Your task to perform on an android device: open app "Gmail" Image 0: 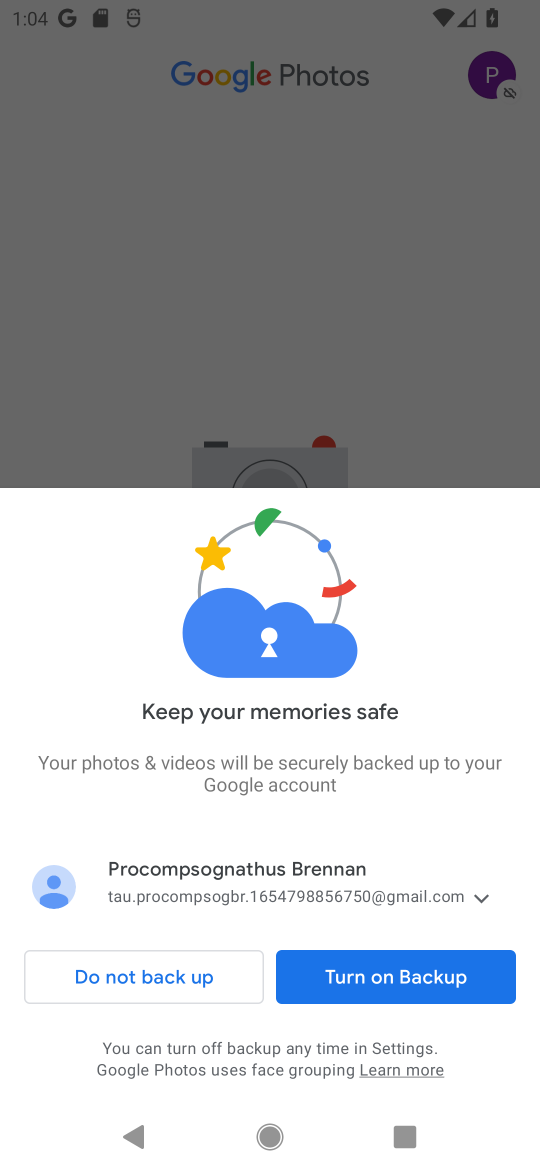
Step 0: press back button
Your task to perform on an android device: open app "Gmail" Image 1: 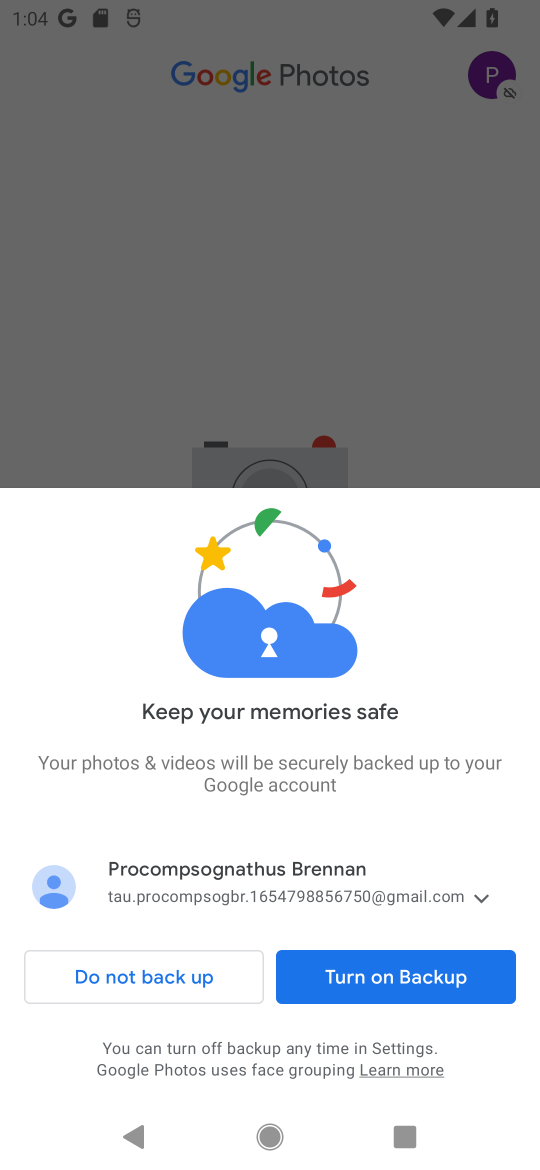
Step 1: press home button
Your task to perform on an android device: open app "Gmail" Image 2: 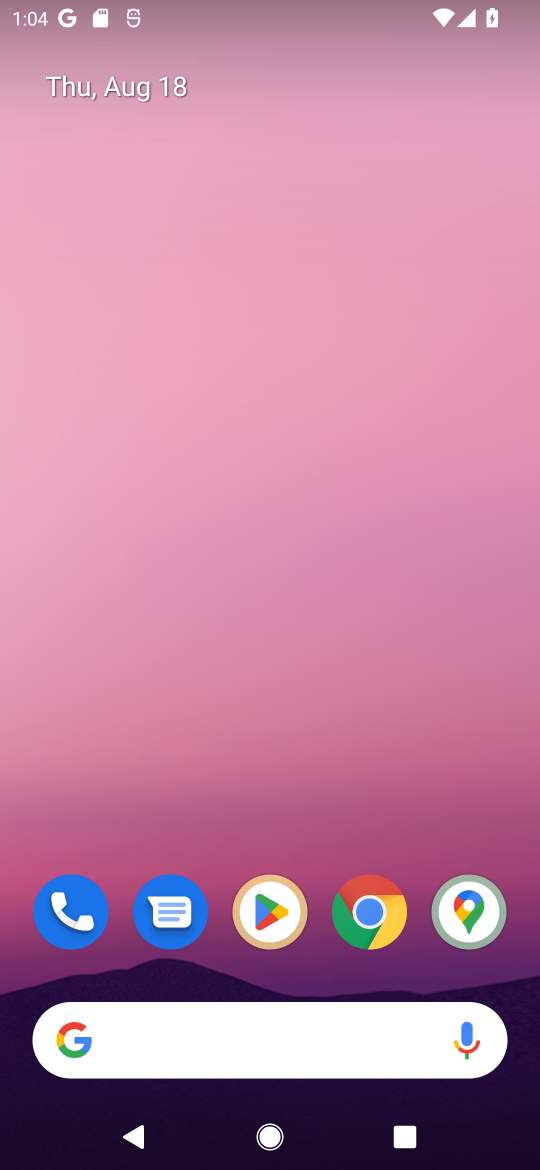
Step 2: click (269, 922)
Your task to perform on an android device: open app "Gmail" Image 3: 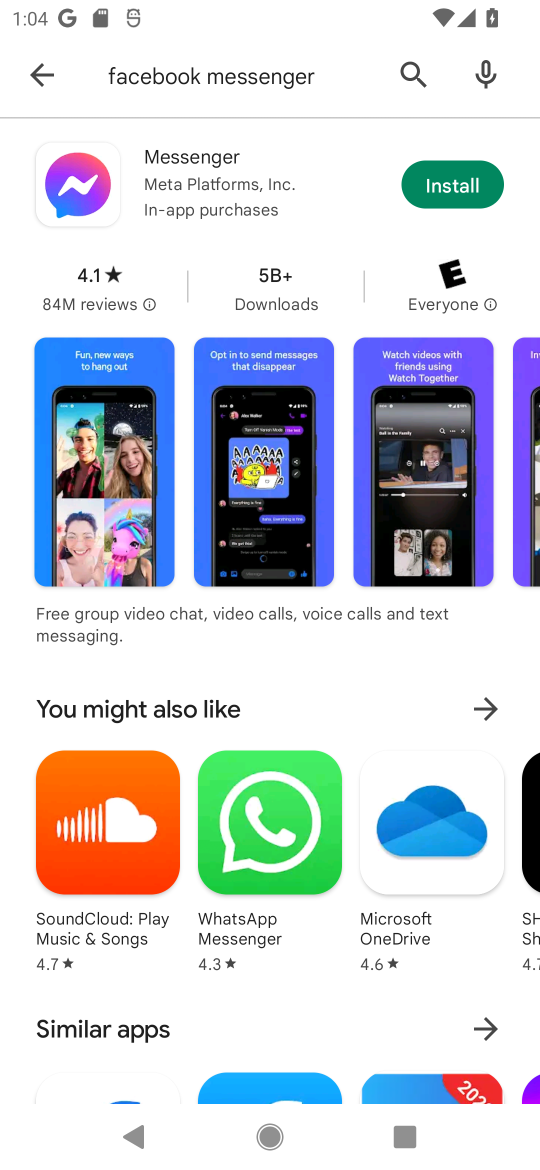
Step 3: click (409, 67)
Your task to perform on an android device: open app "Gmail" Image 4: 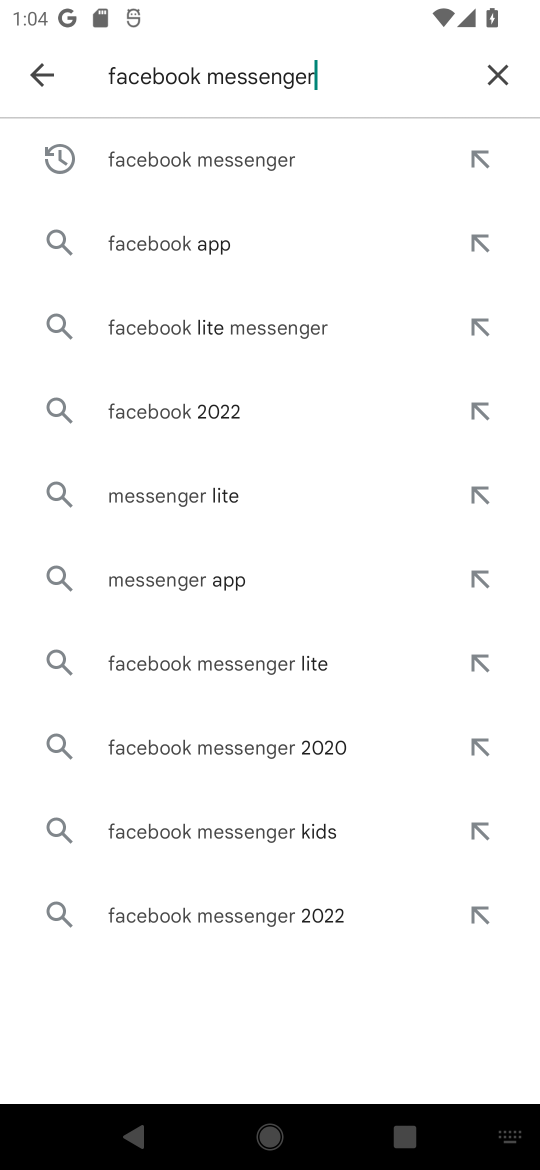
Step 4: click (485, 73)
Your task to perform on an android device: open app "Gmail" Image 5: 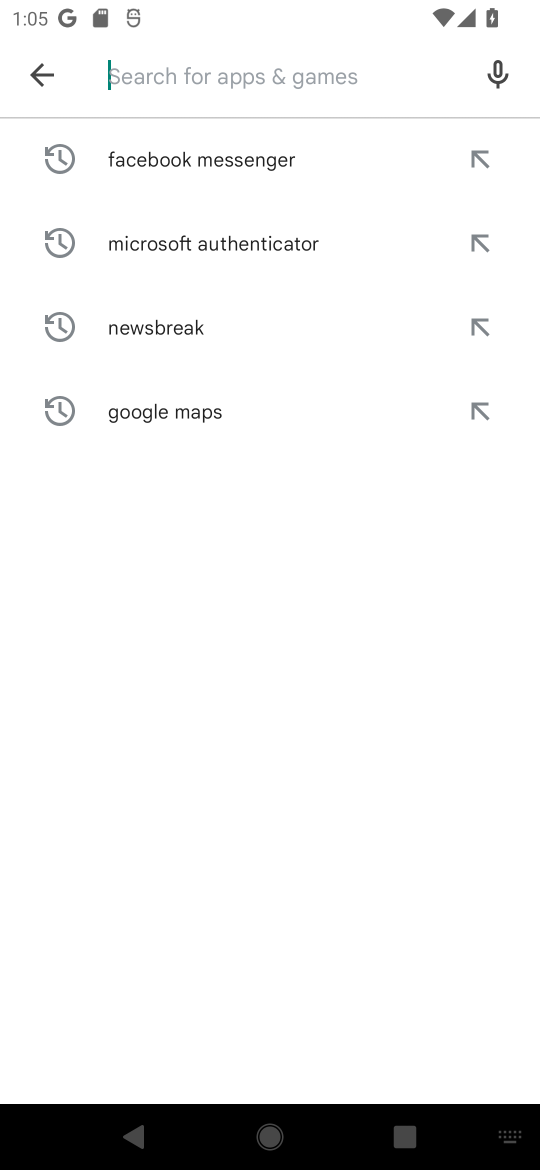
Step 5: press back button
Your task to perform on an android device: open app "Gmail" Image 6: 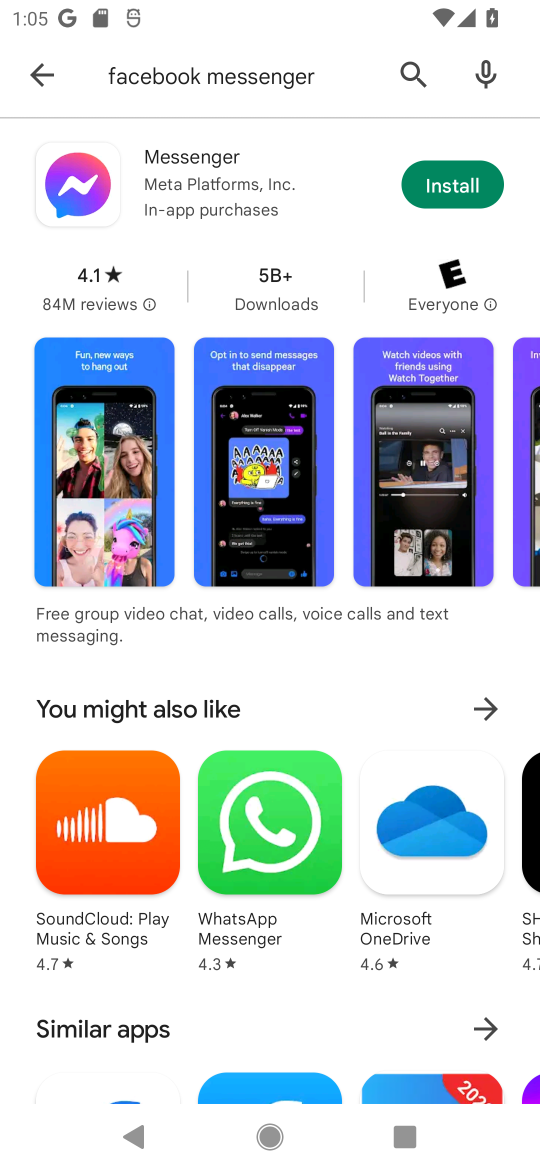
Step 6: press back button
Your task to perform on an android device: open app "Gmail" Image 7: 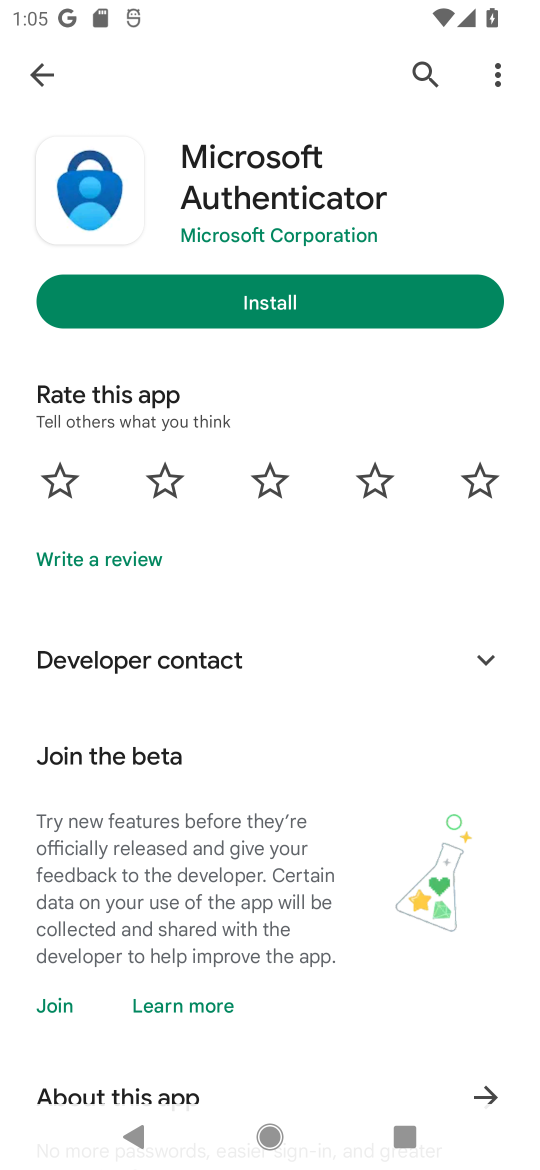
Step 7: press back button
Your task to perform on an android device: open app "Gmail" Image 8: 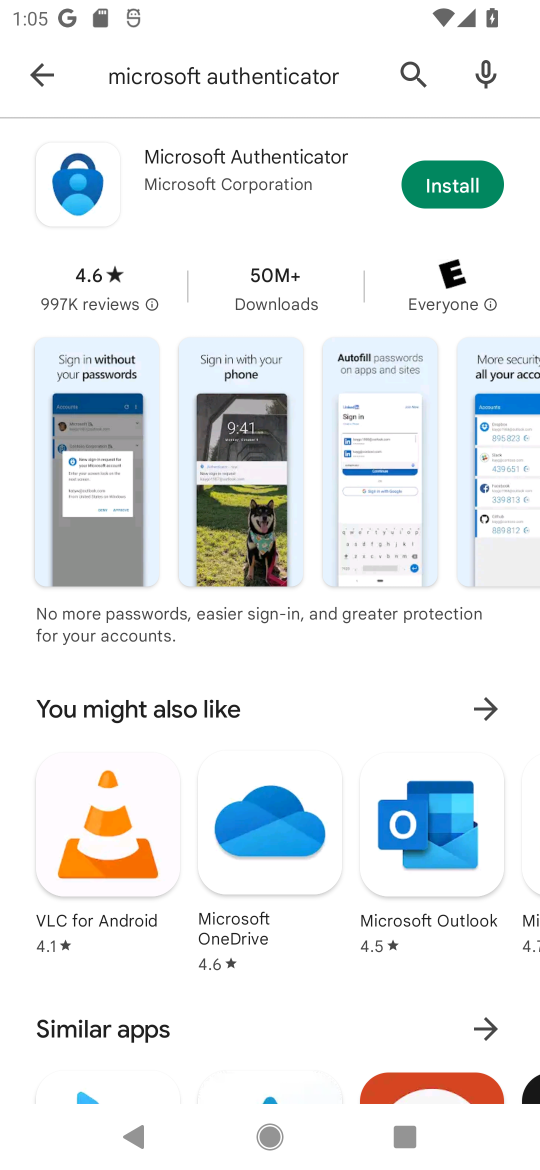
Step 8: press back button
Your task to perform on an android device: open app "Gmail" Image 9: 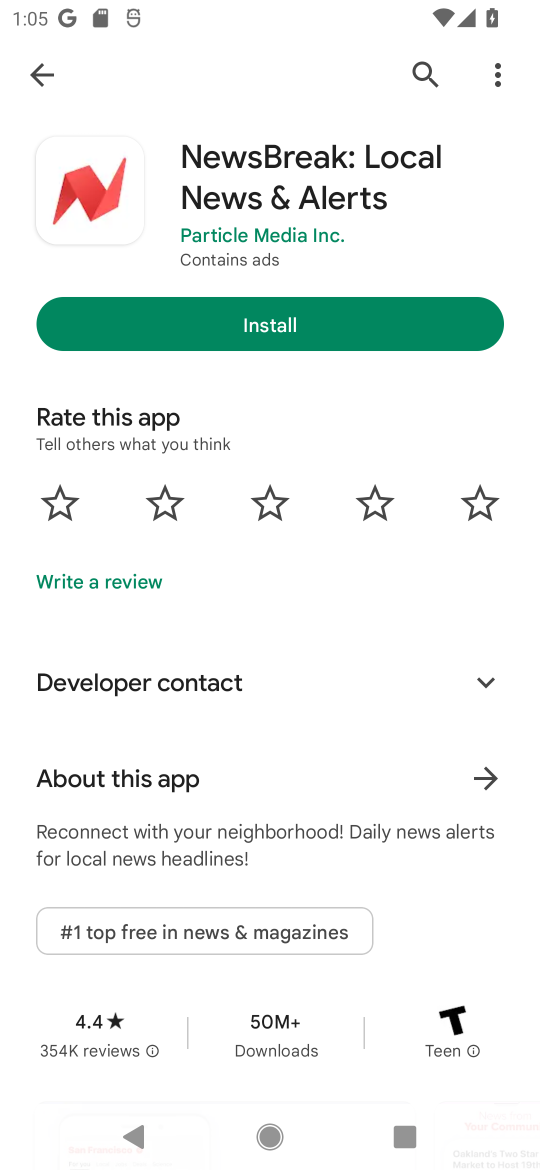
Step 9: press back button
Your task to perform on an android device: open app "Gmail" Image 10: 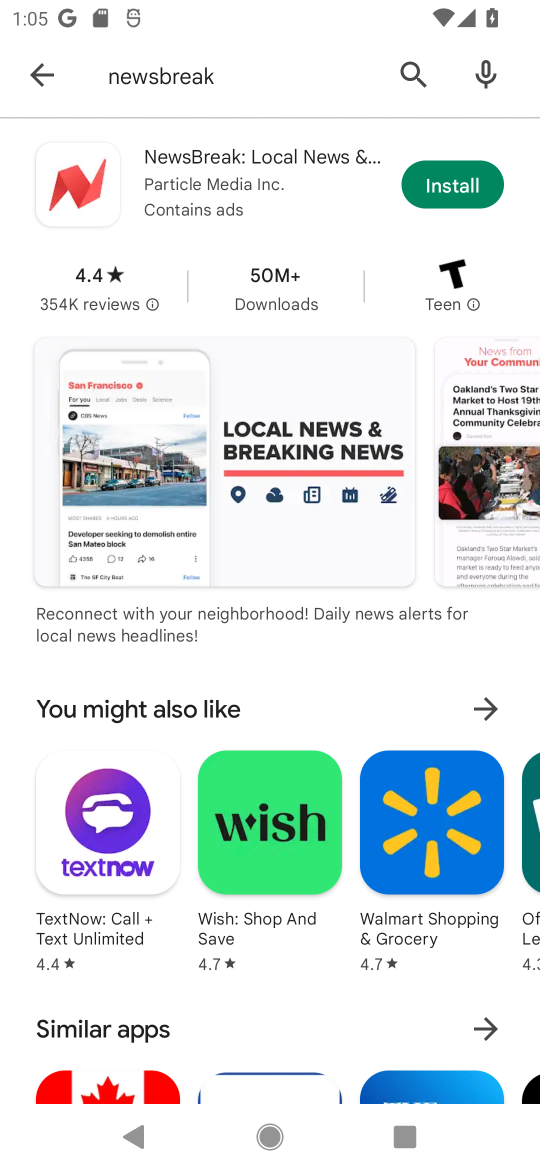
Step 10: press back button
Your task to perform on an android device: open app "Gmail" Image 11: 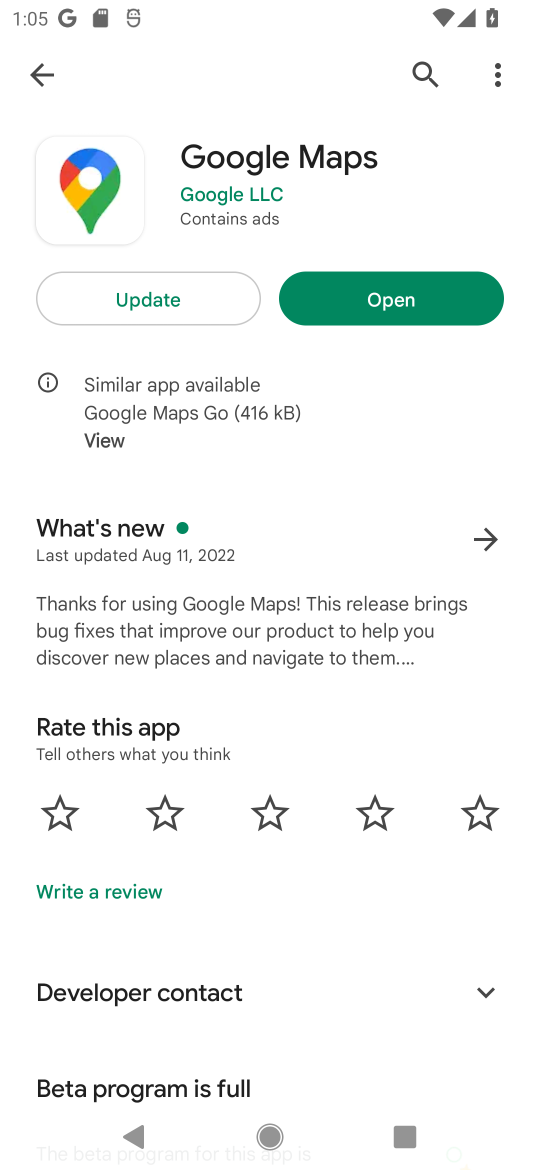
Step 11: press back button
Your task to perform on an android device: open app "Gmail" Image 12: 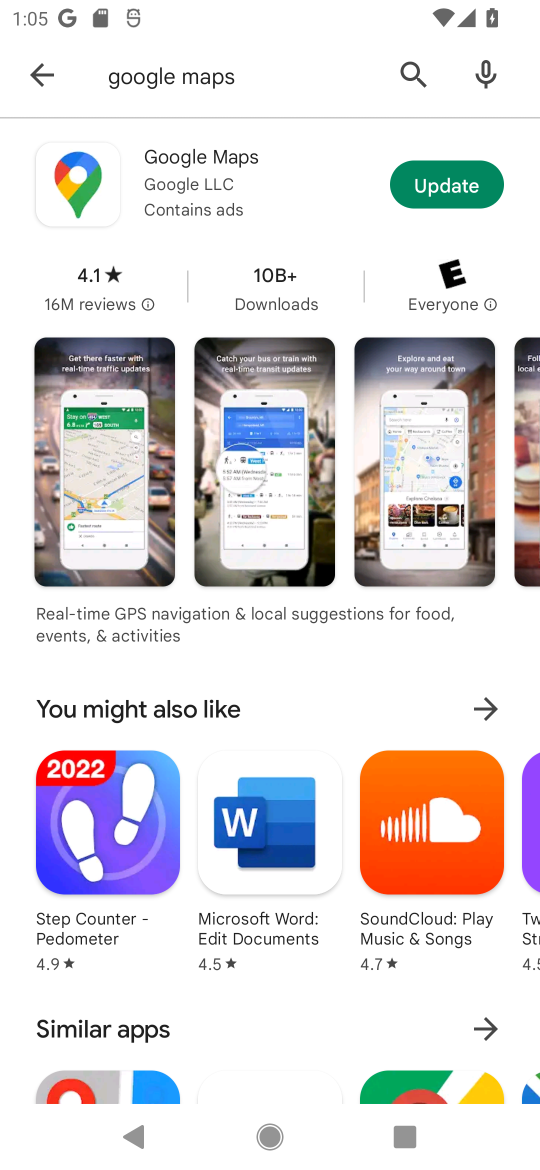
Step 12: press back button
Your task to perform on an android device: open app "Gmail" Image 13: 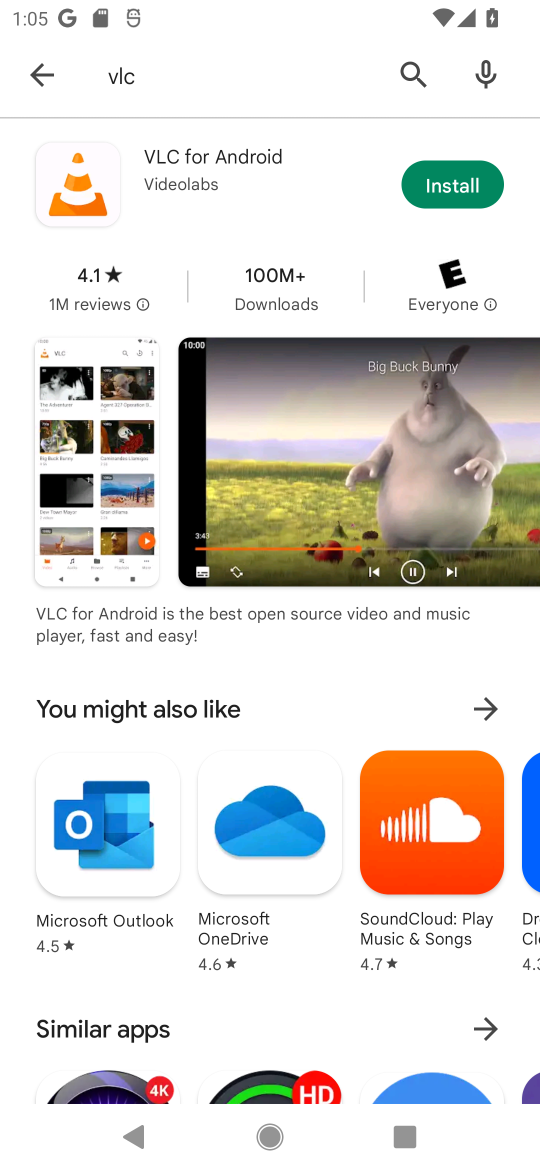
Step 13: press back button
Your task to perform on an android device: open app "Gmail" Image 14: 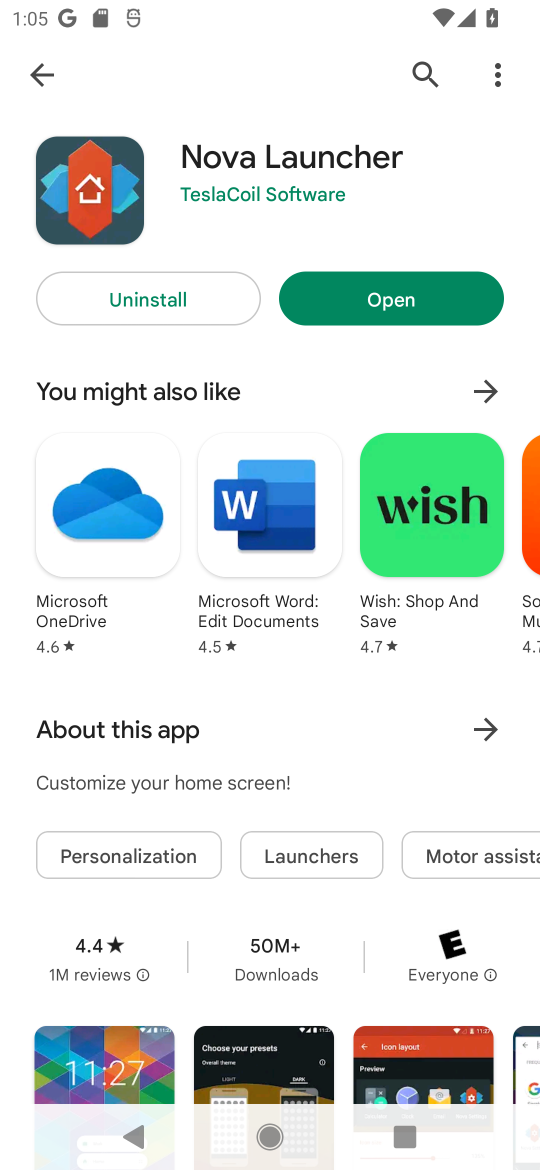
Step 14: press home button
Your task to perform on an android device: open app "Gmail" Image 15: 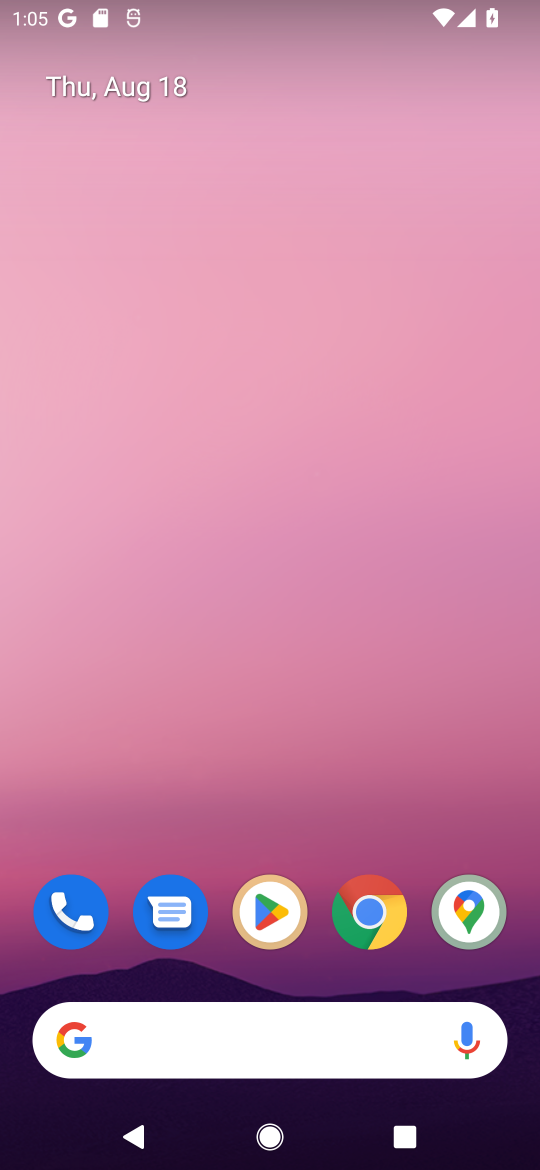
Step 15: drag from (316, 851) to (406, 47)
Your task to perform on an android device: open app "Gmail" Image 16: 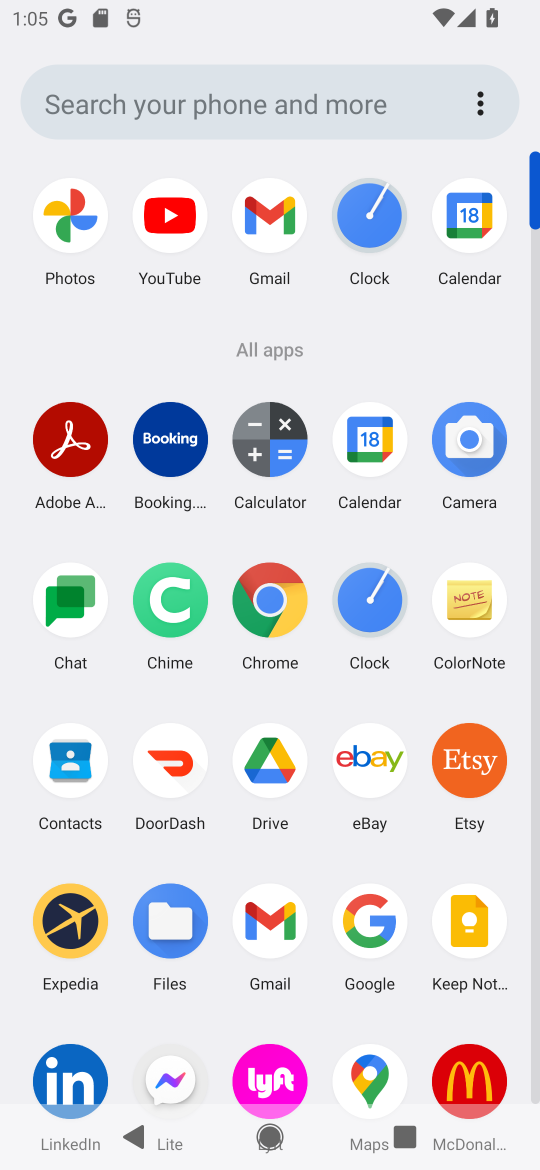
Step 16: click (277, 219)
Your task to perform on an android device: open app "Gmail" Image 17: 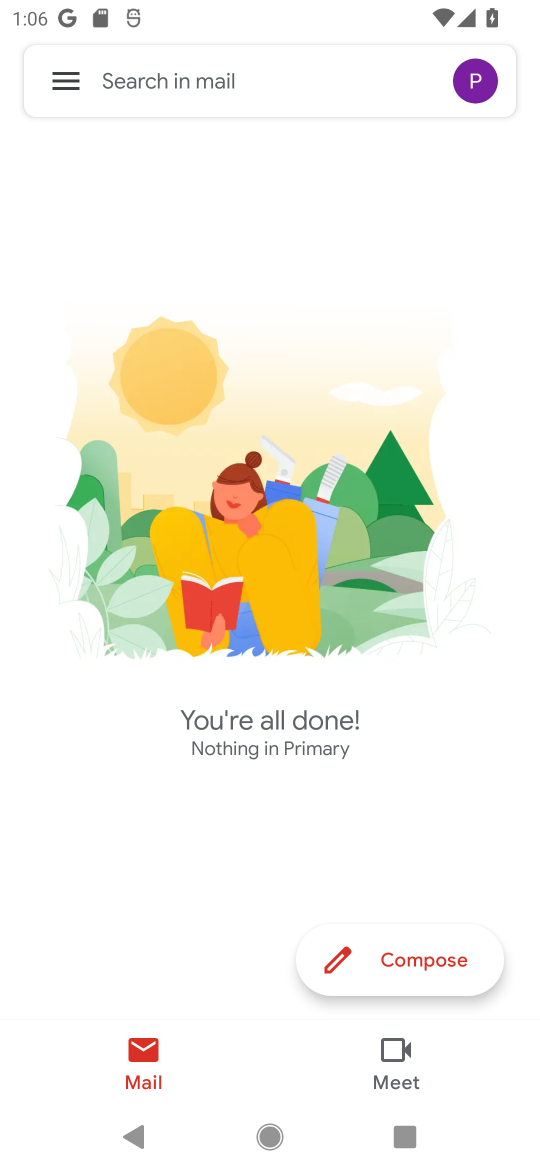
Step 17: task complete